Your task to perform on an android device: Open privacy settings Image 0: 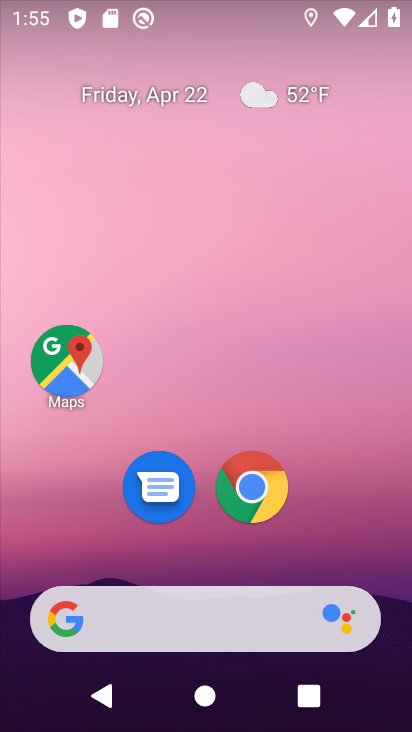
Step 0: click (338, 294)
Your task to perform on an android device: Open privacy settings Image 1: 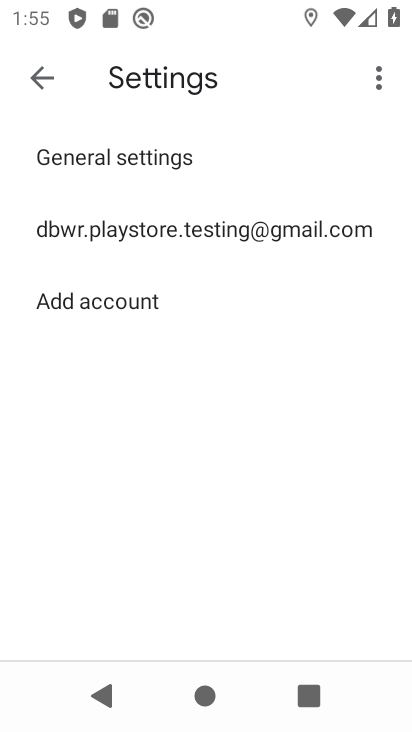
Step 1: press home button
Your task to perform on an android device: Open privacy settings Image 2: 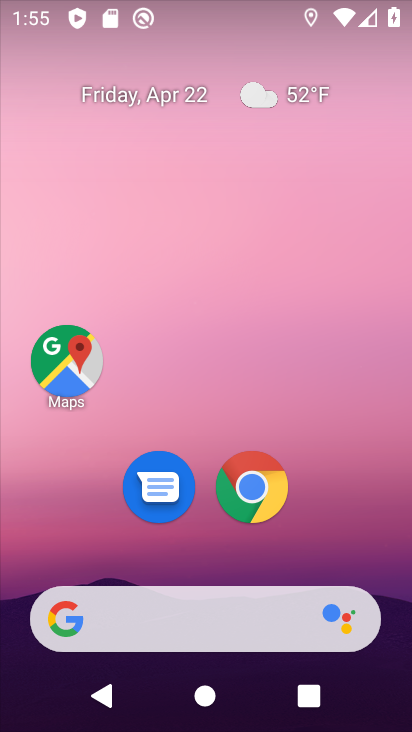
Step 2: drag from (205, 408) to (300, 24)
Your task to perform on an android device: Open privacy settings Image 3: 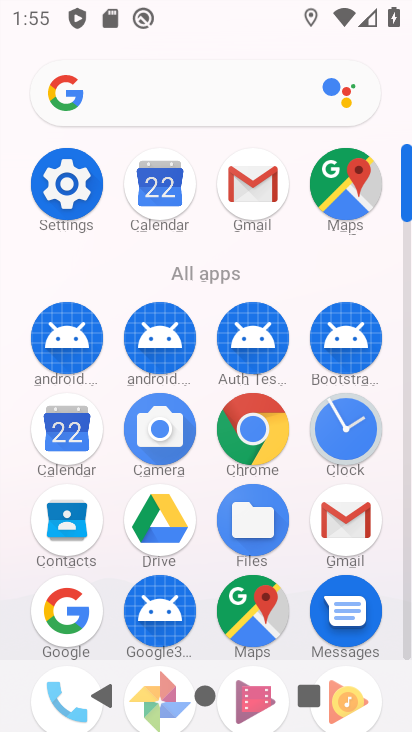
Step 3: click (57, 201)
Your task to perform on an android device: Open privacy settings Image 4: 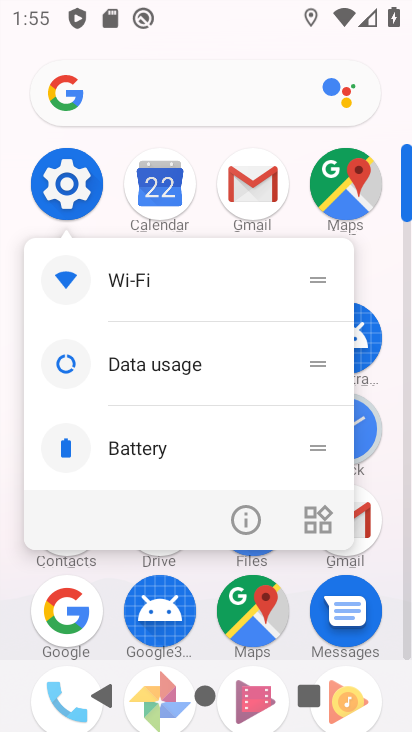
Step 4: click (54, 199)
Your task to perform on an android device: Open privacy settings Image 5: 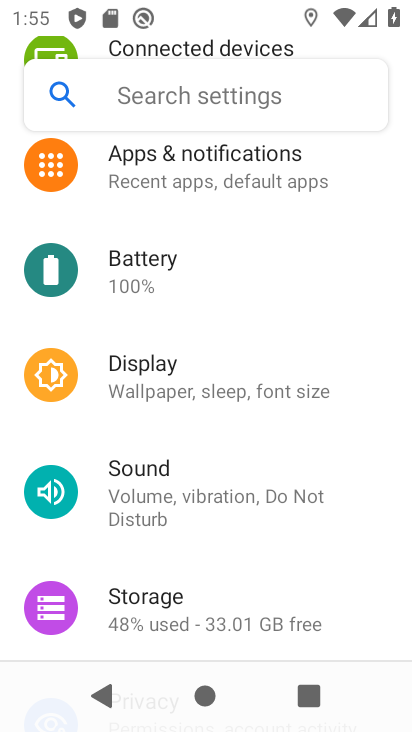
Step 5: drag from (178, 565) to (222, 18)
Your task to perform on an android device: Open privacy settings Image 6: 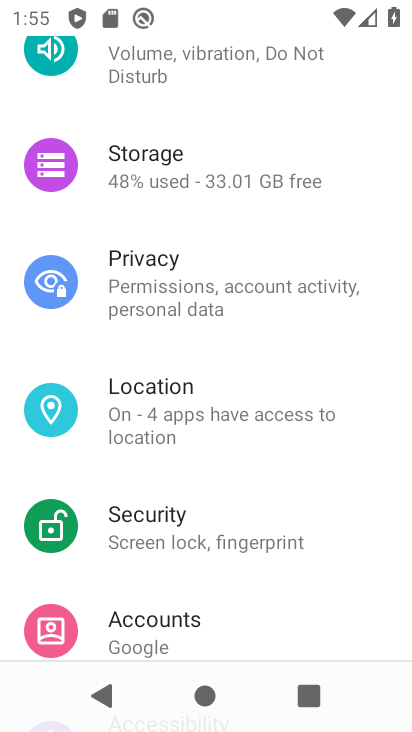
Step 6: drag from (177, 485) to (266, 9)
Your task to perform on an android device: Open privacy settings Image 7: 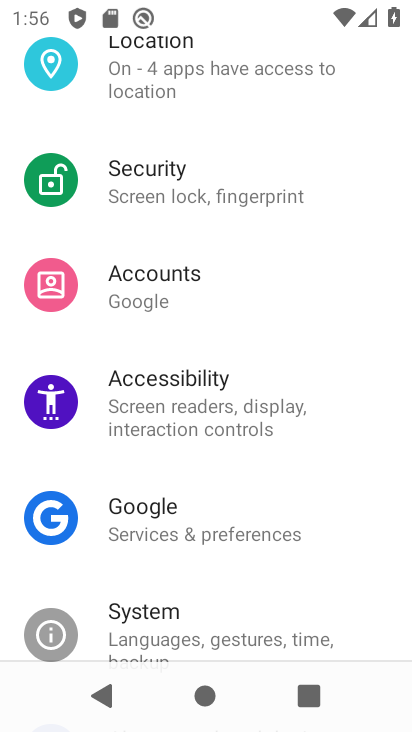
Step 7: drag from (172, 518) to (183, 602)
Your task to perform on an android device: Open privacy settings Image 8: 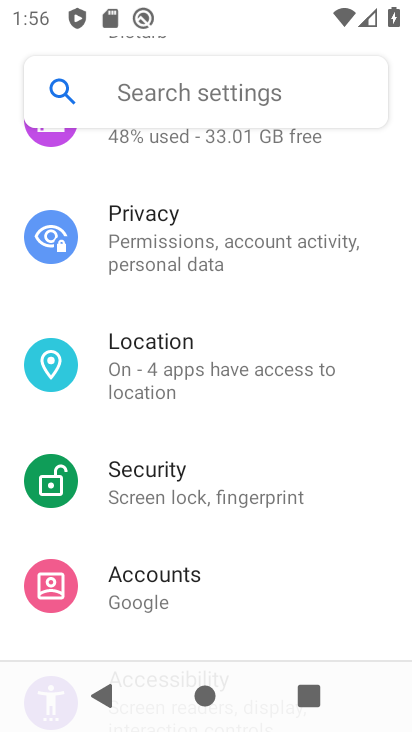
Step 8: click (163, 273)
Your task to perform on an android device: Open privacy settings Image 9: 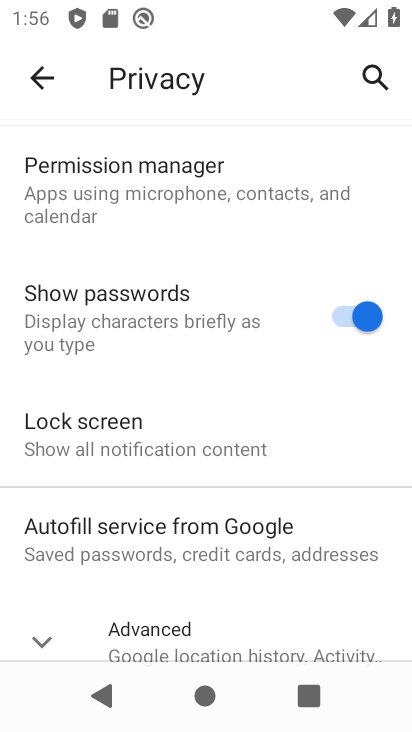
Step 9: task complete